Your task to perform on an android device: uninstall "TextNow: Call + Text Unlimited" Image 0: 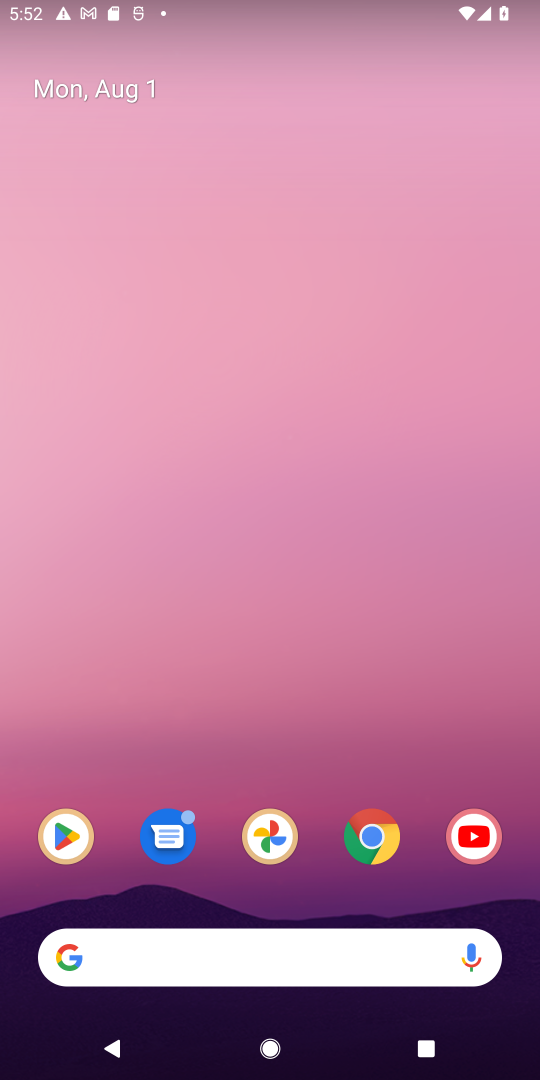
Step 0: press home button
Your task to perform on an android device: uninstall "TextNow: Call + Text Unlimited" Image 1: 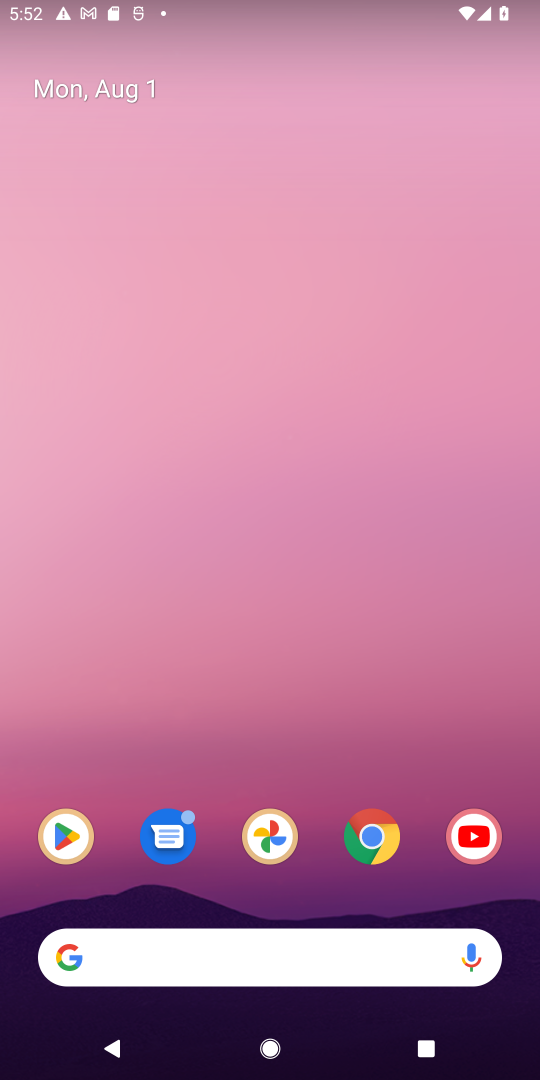
Step 1: click (58, 842)
Your task to perform on an android device: uninstall "TextNow: Call + Text Unlimited" Image 2: 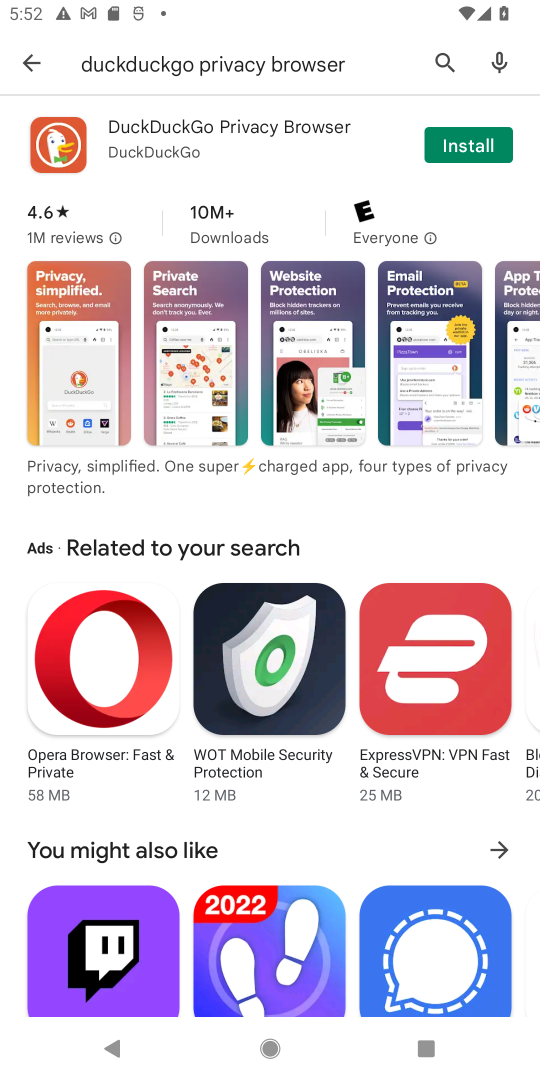
Step 2: click (440, 63)
Your task to perform on an android device: uninstall "TextNow: Call + Text Unlimited" Image 3: 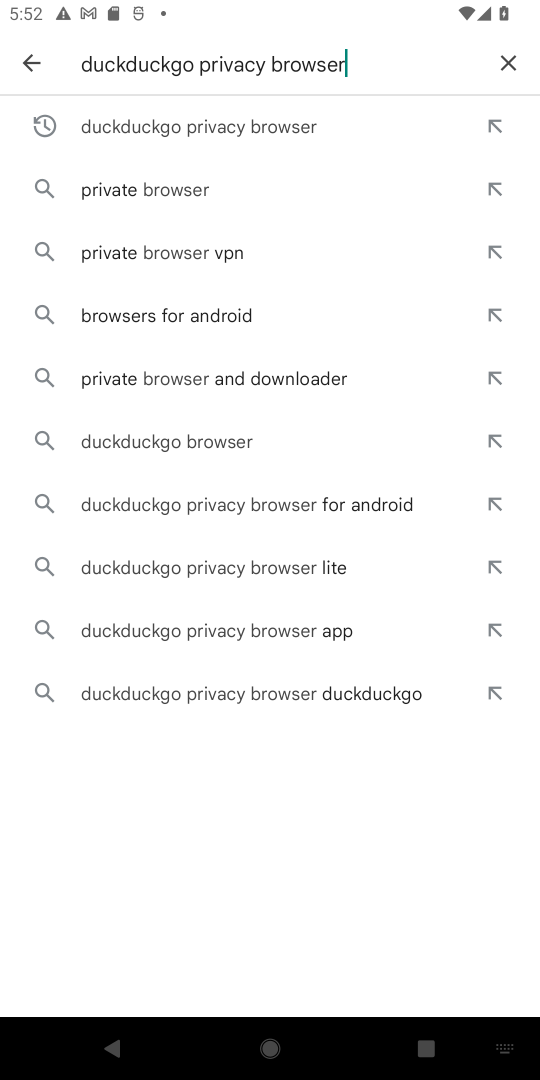
Step 3: click (511, 54)
Your task to perform on an android device: uninstall "TextNow: Call + Text Unlimited" Image 4: 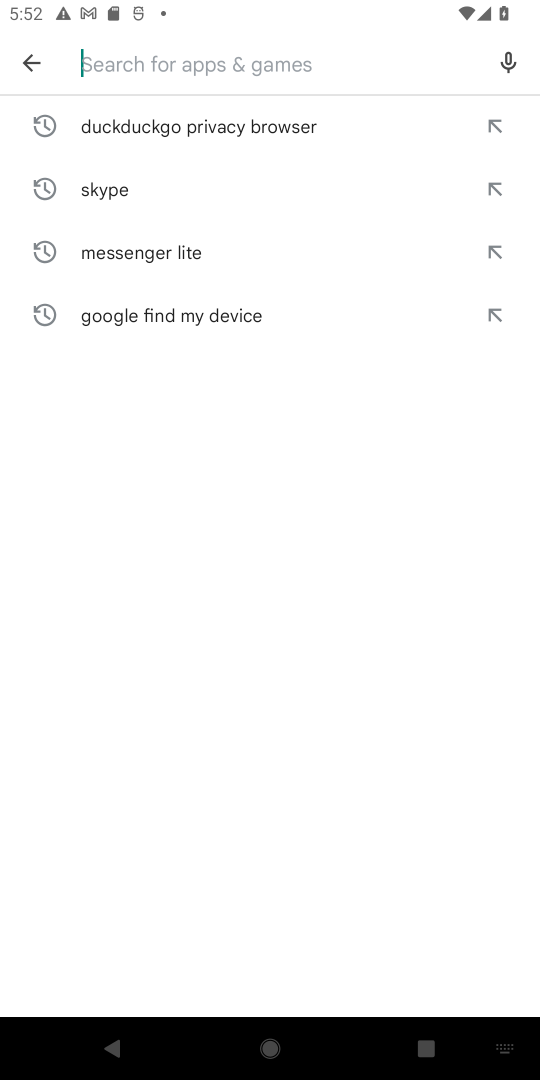
Step 4: type "TextNow: Call + Text Unlimited"
Your task to perform on an android device: uninstall "TextNow: Call + Text Unlimited" Image 5: 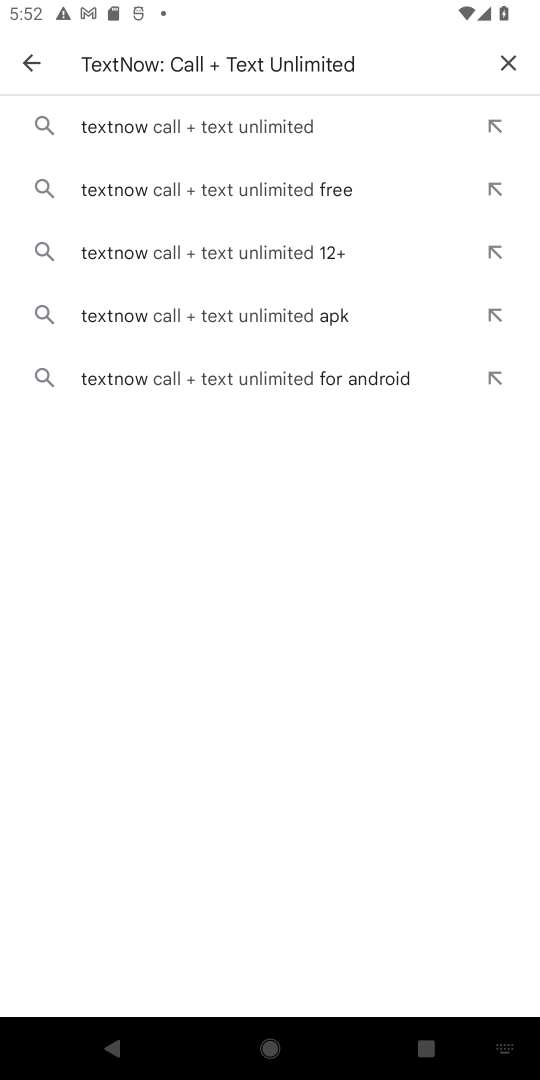
Step 5: click (254, 126)
Your task to perform on an android device: uninstall "TextNow: Call + Text Unlimited" Image 6: 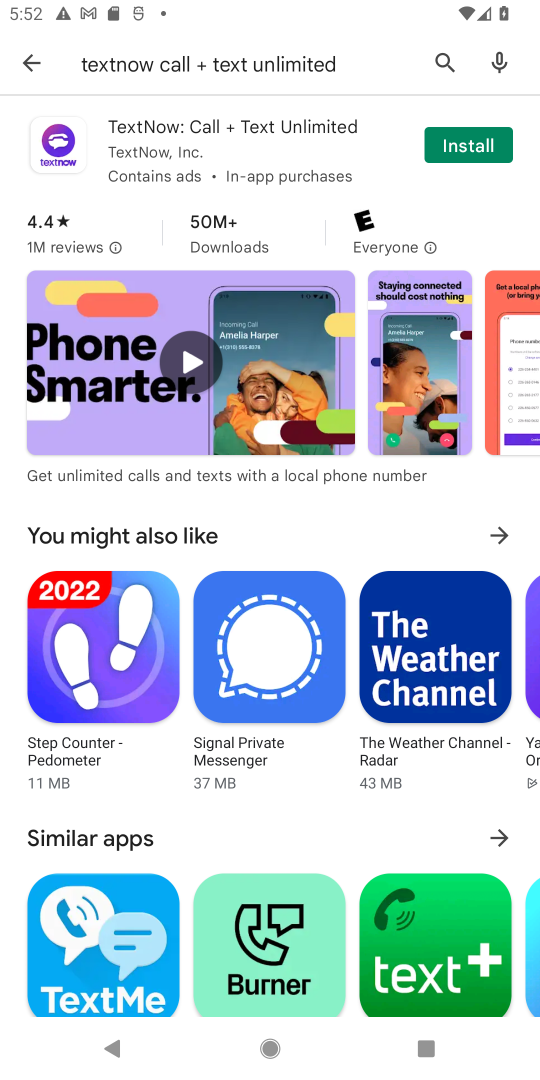
Step 6: task complete